Your task to perform on an android device: Go to Google Image 0: 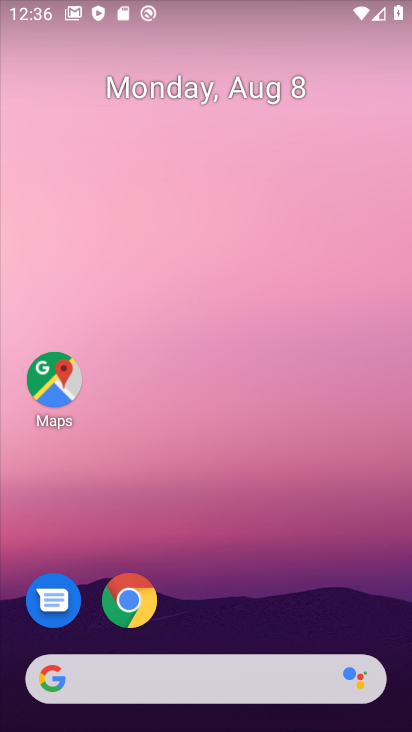
Step 0: press home button
Your task to perform on an android device: Go to Google Image 1: 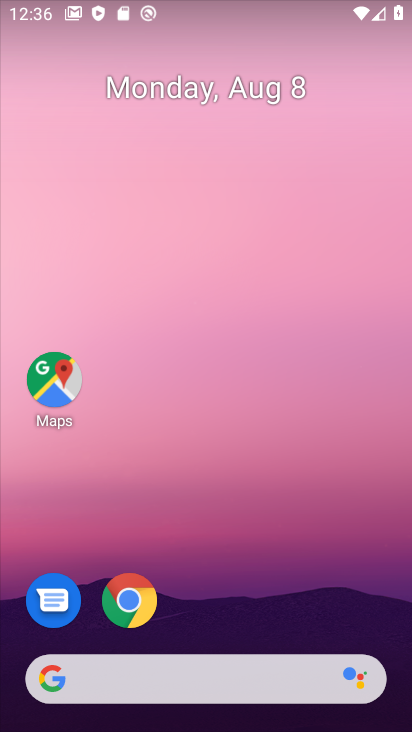
Step 1: drag from (211, 608) to (216, 156)
Your task to perform on an android device: Go to Google Image 2: 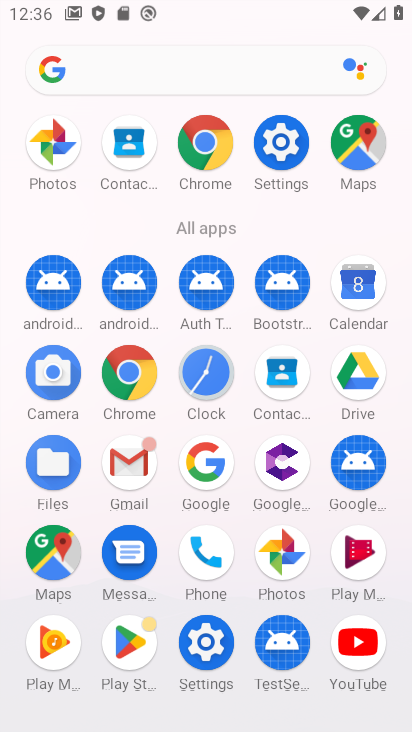
Step 2: click (183, 459)
Your task to perform on an android device: Go to Google Image 3: 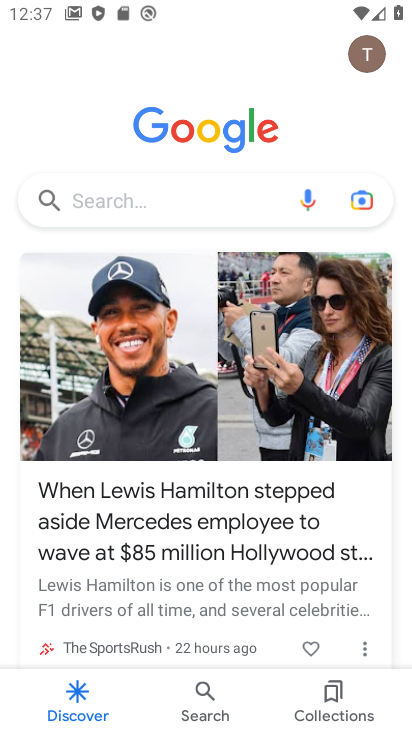
Step 3: task complete